Your task to perform on an android device: clear history in the chrome app Image 0: 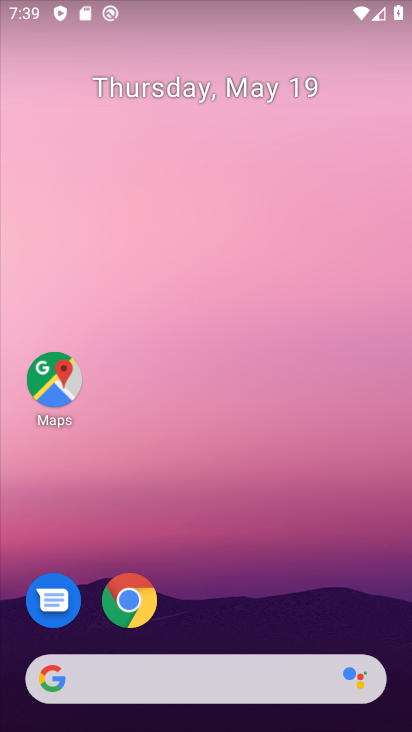
Step 0: click (146, 612)
Your task to perform on an android device: clear history in the chrome app Image 1: 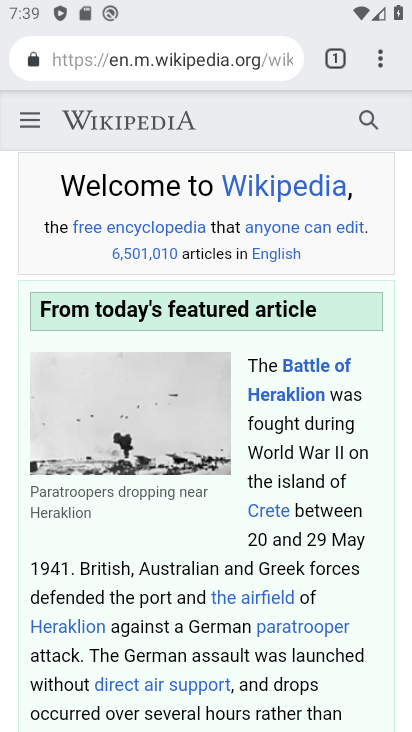
Step 1: click (388, 55)
Your task to perform on an android device: clear history in the chrome app Image 2: 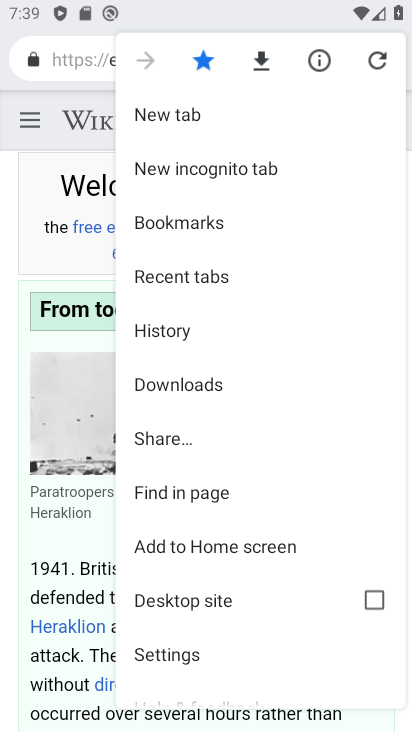
Step 2: click (243, 328)
Your task to perform on an android device: clear history in the chrome app Image 3: 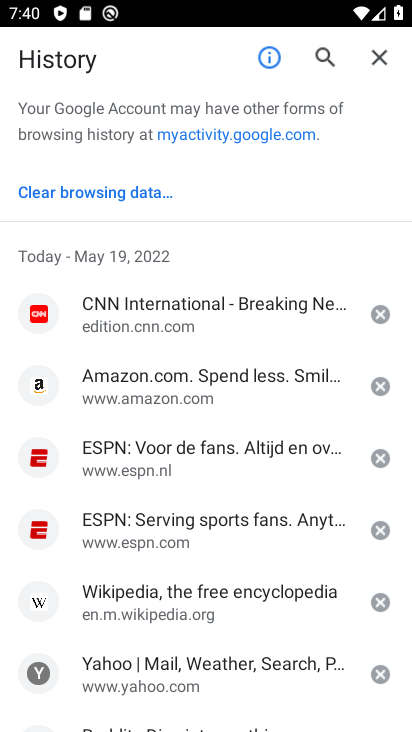
Step 3: click (127, 179)
Your task to perform on an android device: clear history in the chrome app Image 4: 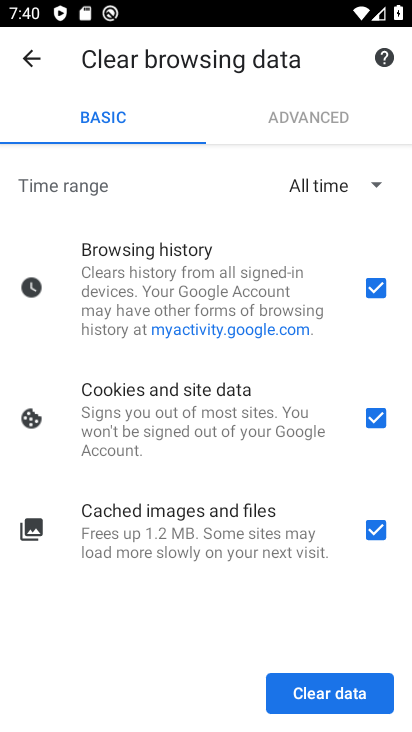
Step 4: click (289, 677)
Your task to perform on an android device: clear history in the chrome app Image 5: 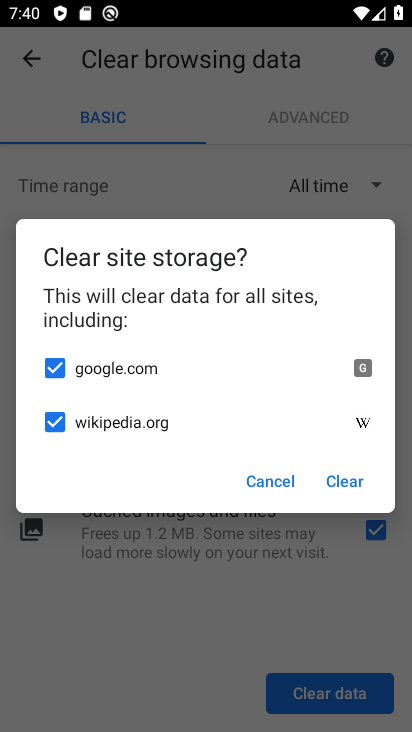
Step 5: click (350, 470)
Your task to perform on an android device: clear history in the chrome app Image 6: 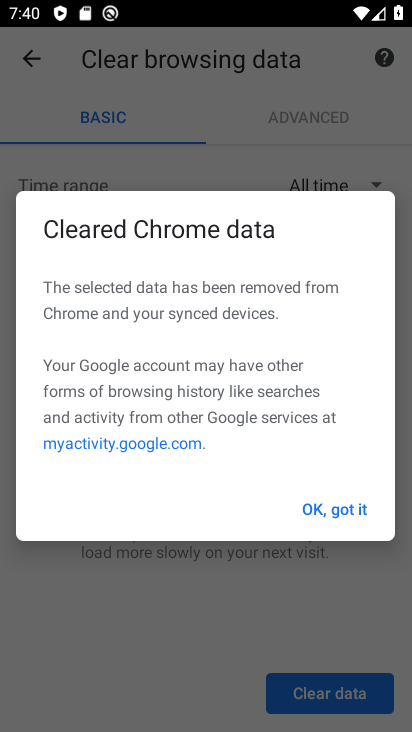
Step 6: task complete